Your task to perform on an android device: Toggle the flashlight Image 0: 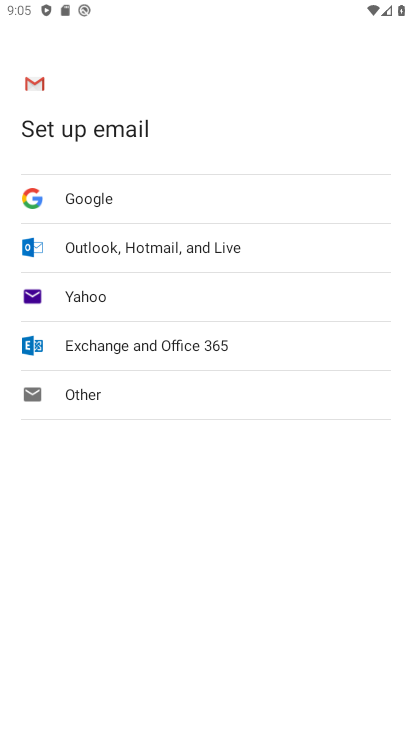
Step 0: press home button
Your task to perform on an android device: Toggle the flashlight Image 1: 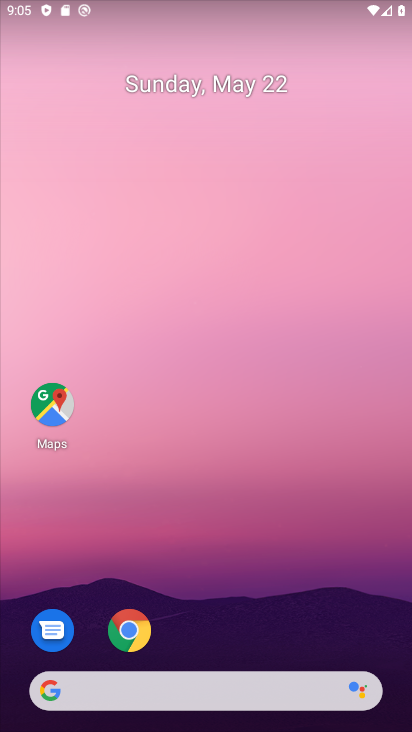
Step 1: drag from (402, 658) to (388, 194)
Your task to perform on an android device: Toggle the flashlight Image 2: 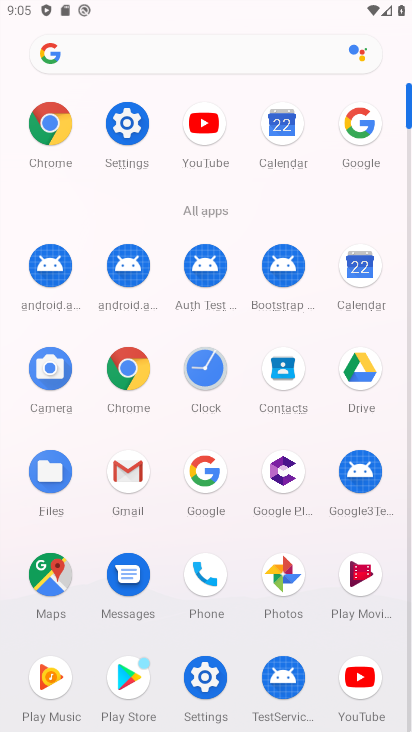
Step 2: click (118, 129)
Your task to perform on an android device: Toggle the flashlight Image 3: 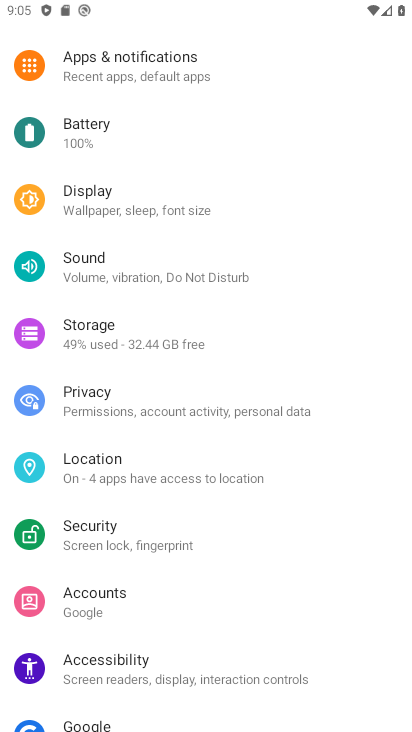
Step 3: click (97, 204)
Your task to perform on an android device: Toggle the flashlight Image 4: 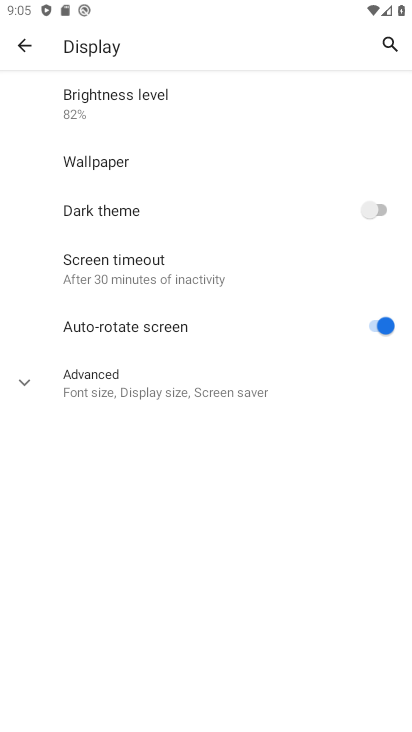
Step 4: task complete